Your task to perform on an android device: What's on my calendar today? Image 0: 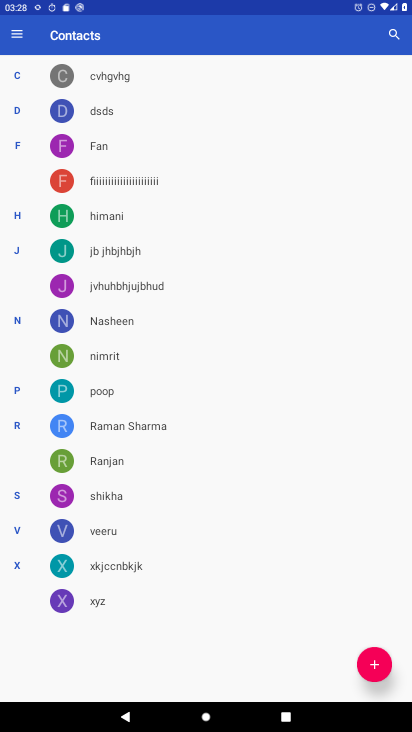
Step 0: press home button
Your task to perform on an android device: What's on my calendar today? Image 1: 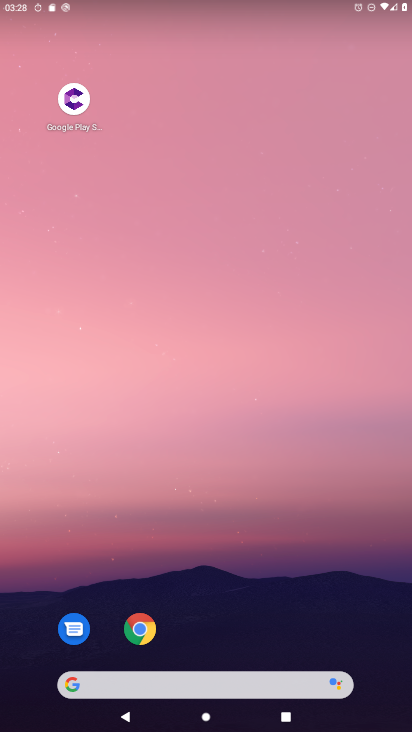
Step 1: drag from (186, 685) to (239, 129)
Your task to perform on an android device: What's on my calendar today? Image 2: 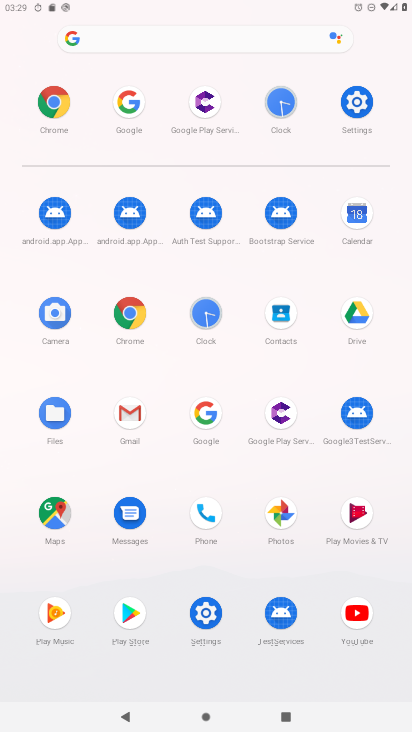
Step 2: click (356, 215)
Your task to perform on an android device: What's on my calendar today? Image 3: 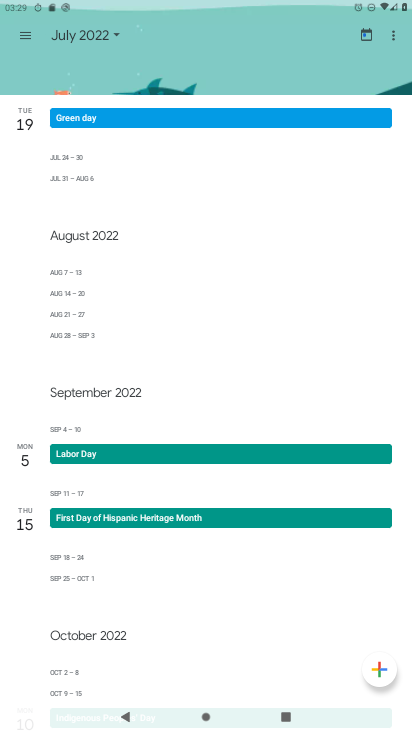
Step 3: click (373, 40)
Your task to perform on an android device: What's on my calendar today? Image 4: 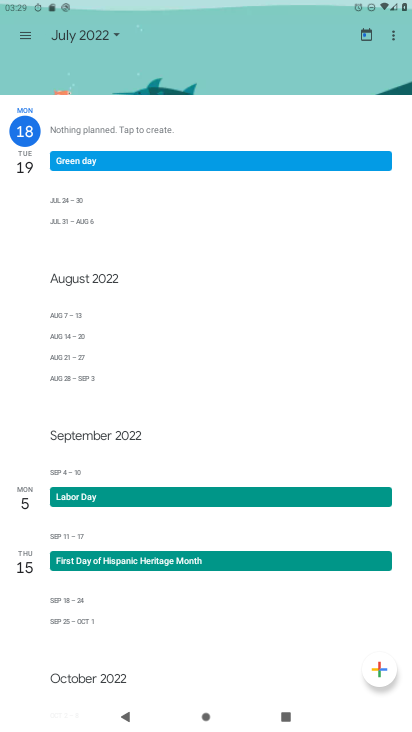
Step 4: click (113, 26)
Your task to perform on an android device: What's on my calendar today? Image 5: 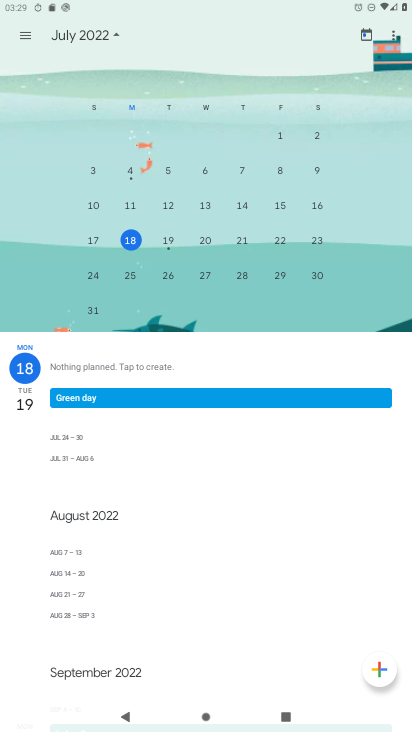
Step 5: click (131, 247)
Your task to perform on an android device: What's on my calendar today? Image 6: 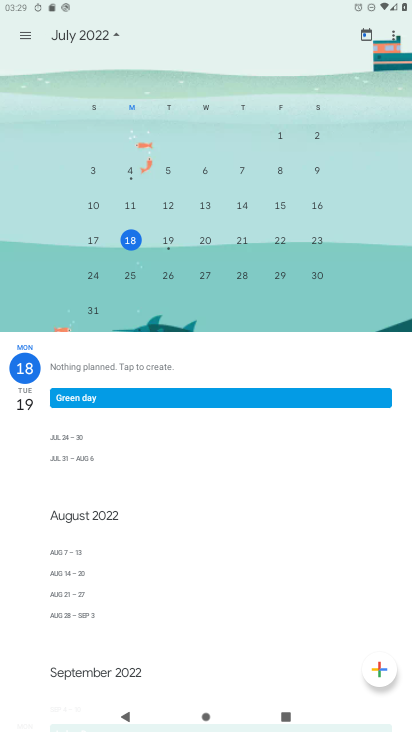
Step 6: click (21, 36)
Your task to perform on an android device: What's on my calendar today? Image 7: 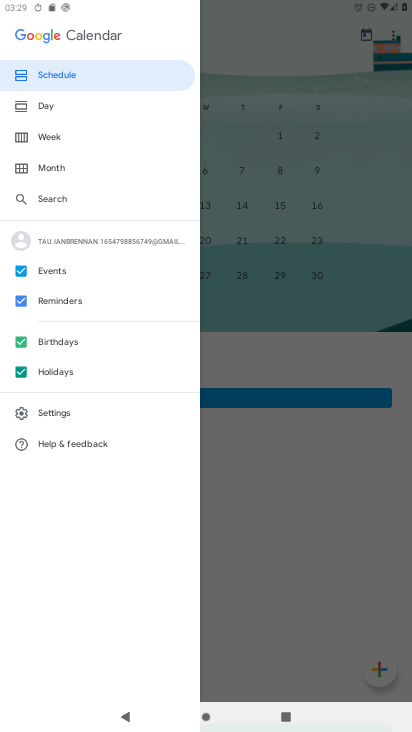
Step 7: click (42, 73)
Your task to perform on an android device: What's on my calendar today? Image 8: 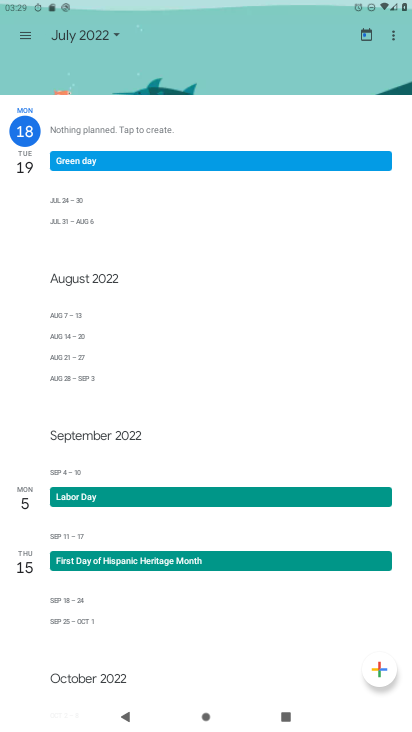
Step 8: task complete